Your task to perform on an android device: search for starred emails in the gmail app Image 0: 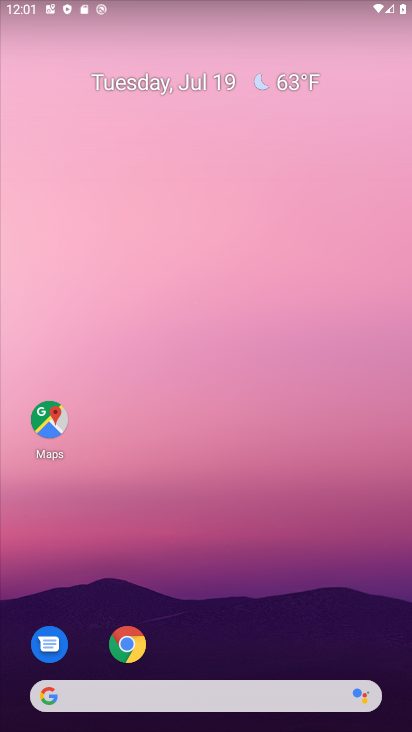
Step 0: drag from (227, 731) to (239, 117)
Your task to perform on an android device: search for starred emails in the gmail app Image 1: 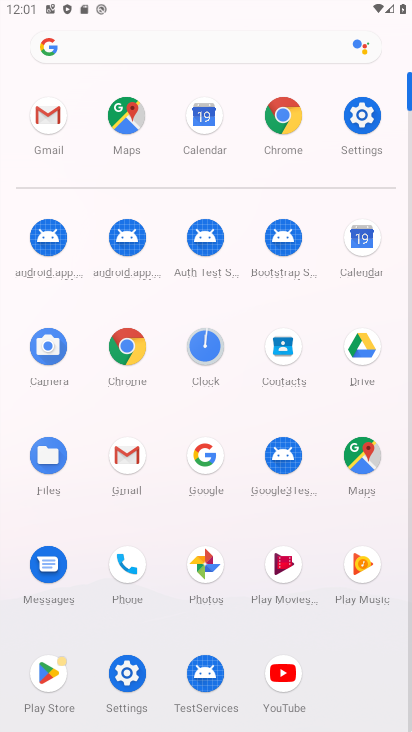
Step 1: click (125, 453)
Your task to perform on an android device: search for starred emails in the gmail app Image 2: 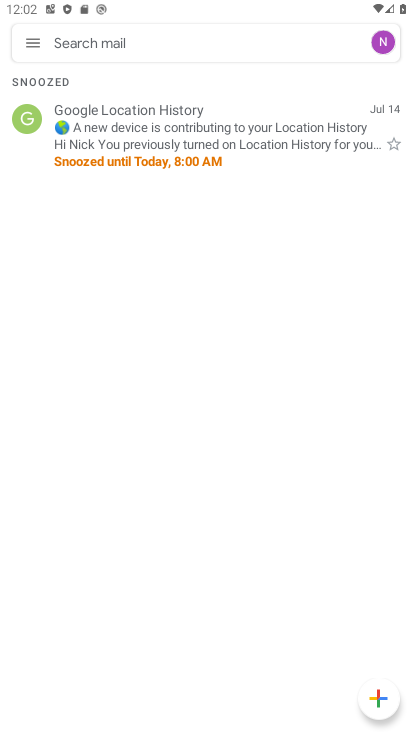
Step 2: click (28, 38)
Your task to perform on an android device: search for starred emails in the gmail app Image 3: 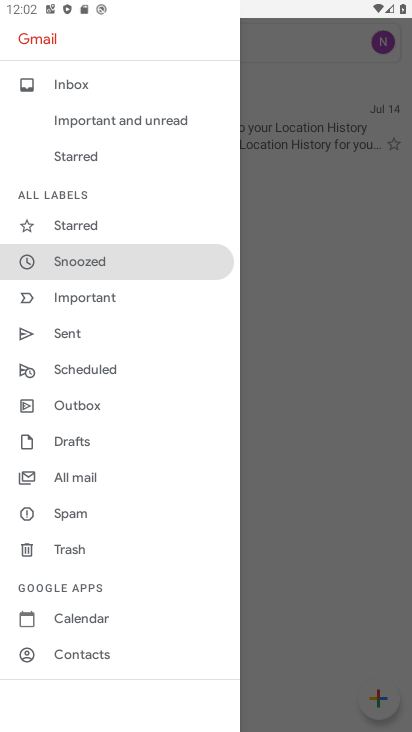
Step 3: click (76, 227)
Your task to perform on an android device: search for starred emails in the gmail app Image 4: 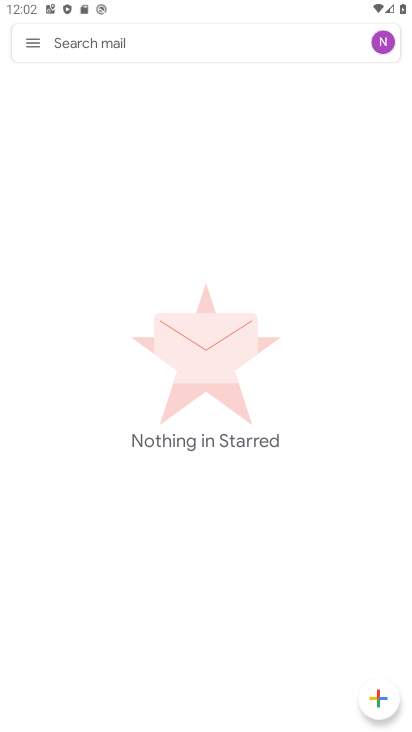
Step 4: task complete